Your task to perform on an android device: change the clock style Image 0: 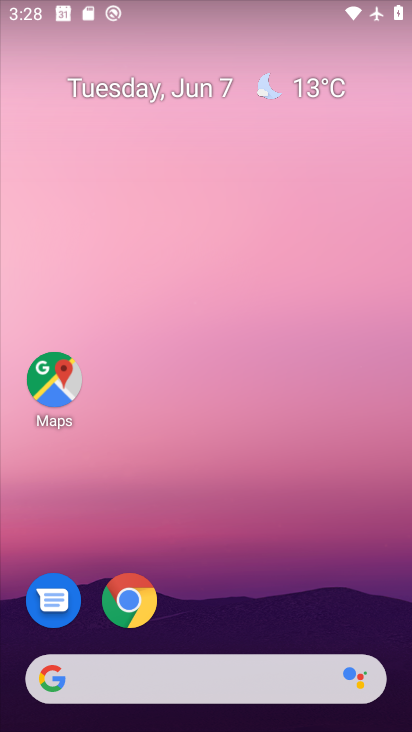
Step 0: drag from (272, 622) to (284, 149)
Your task to perform on an android device: change the clock style Image 1: 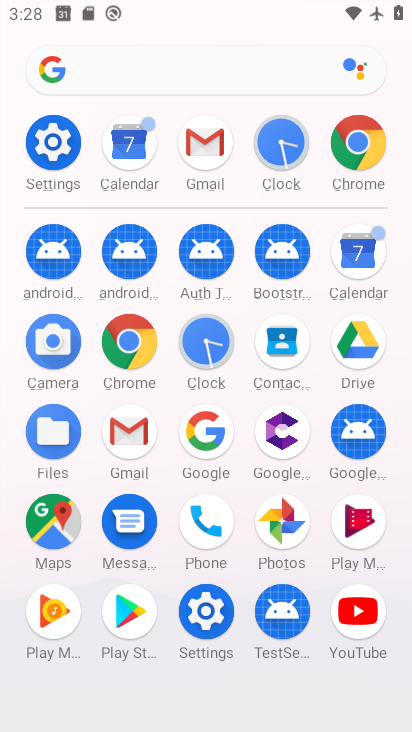
Step 1: click (211, 343)
Your task to perform on an android device: change the clock style Image 2: 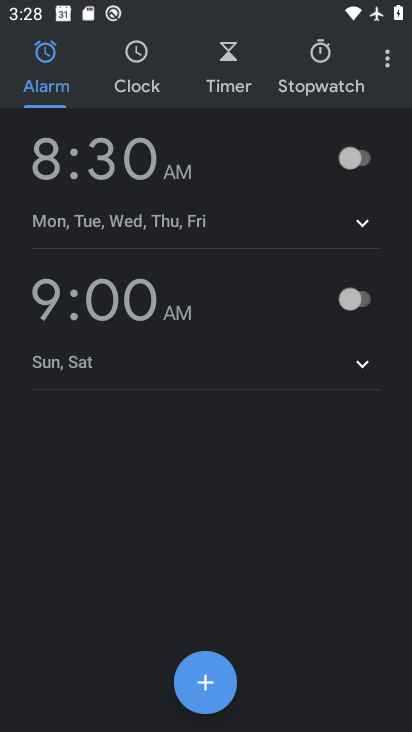
Step 2: click (397, 49)
Your task to perform on an android device: change the clock style Image 3: 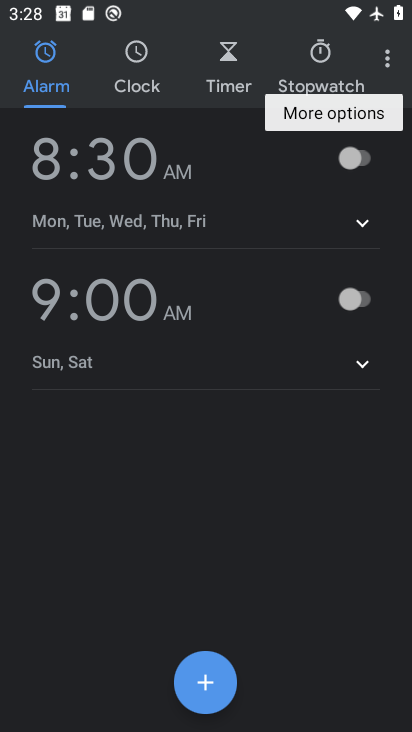
Step 3: click (396, 50)
Your task to perform on an android device: change the clock style Image 4: 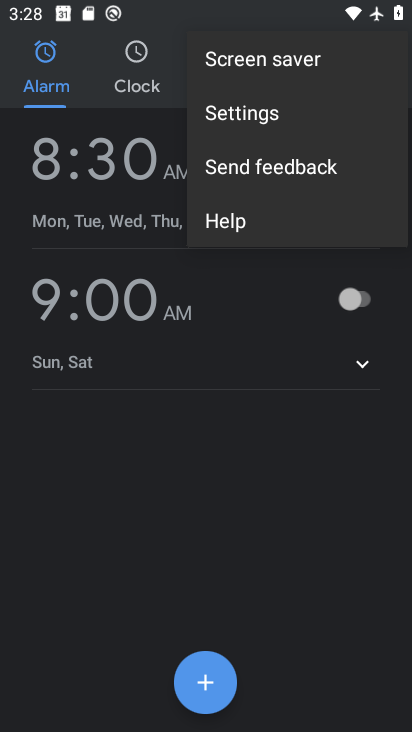
Step 4: click (301, 112)
Your task to perform on an android device: change the clock style Image 5: 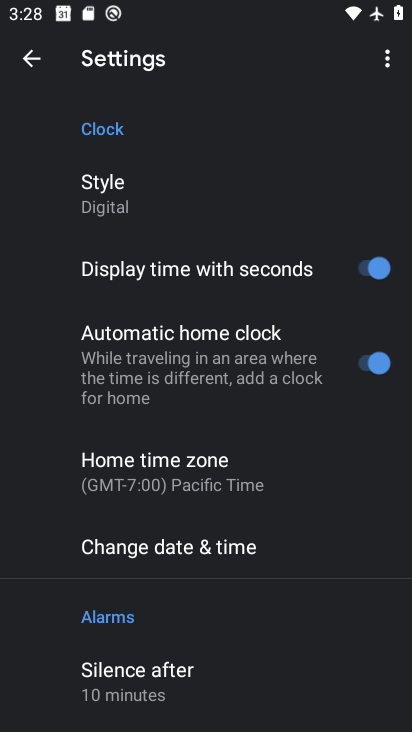
Step 5: click (171, 202)
Your task to perform on an android device: change the clock style Image 6: 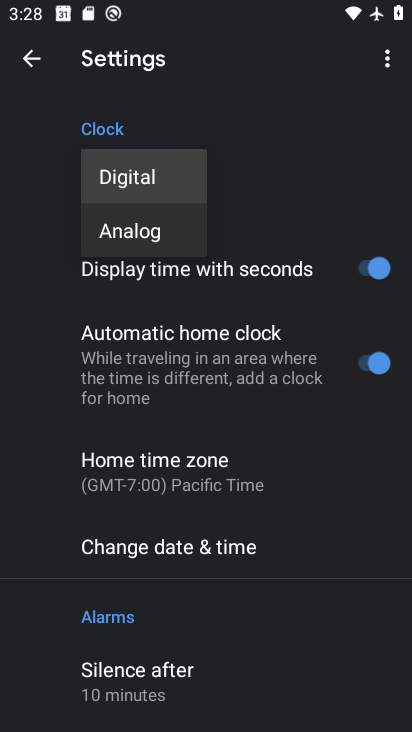
Step 6: click (147, 237)
Your task to perform on an android device: change the clock style Image 7: 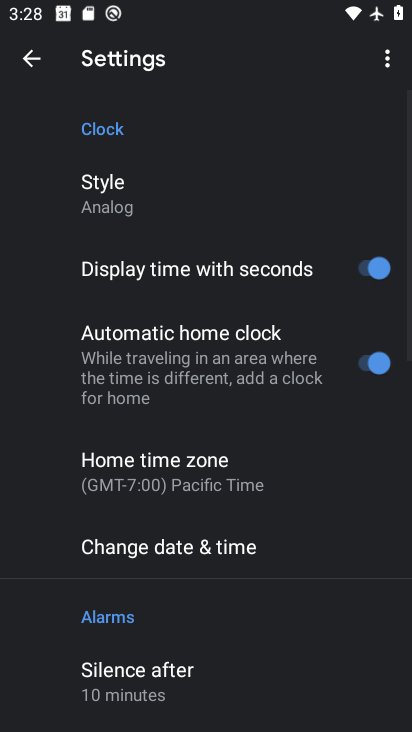
Step 7: task complete